Your task to perform on an android device: Do I have any events this weekend? Image 0: 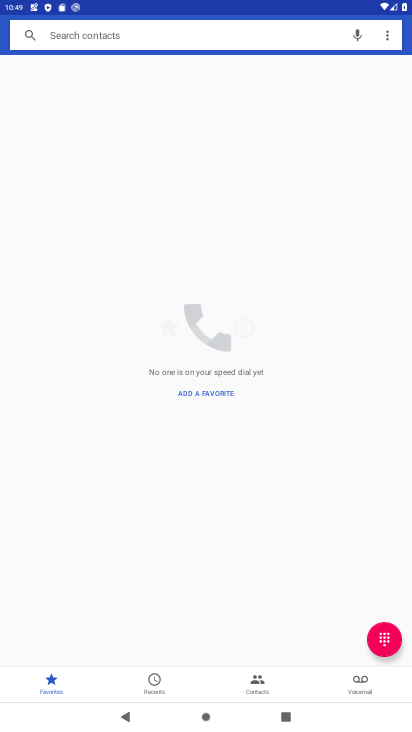
Step 0: press home button
Your task to perform on an android device: Do I have any events this weekend? Image 1: 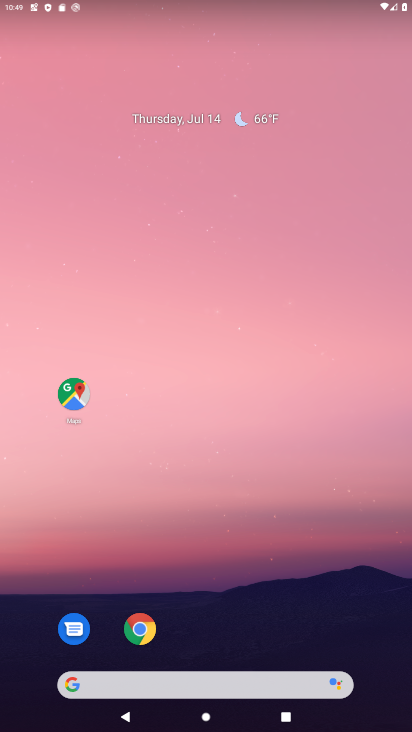
Step 1: drag from (255, 624) to (350, 23)
Your task to perform on an android device: Do I have any events this weekend? Image 2: 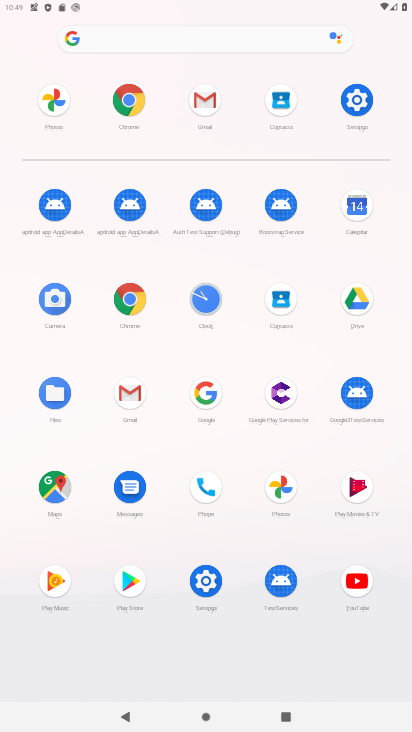
Step 2: click (355, 208)
Your task to perform on an android device: Do I have any events this weekend? Image 3: 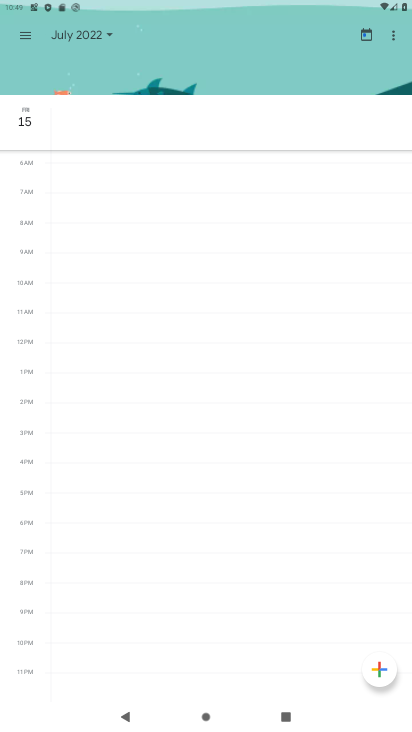
Step 3: click (29, 38)
Your task to perform on an android device: Do I have any events this weekend? Image 4: 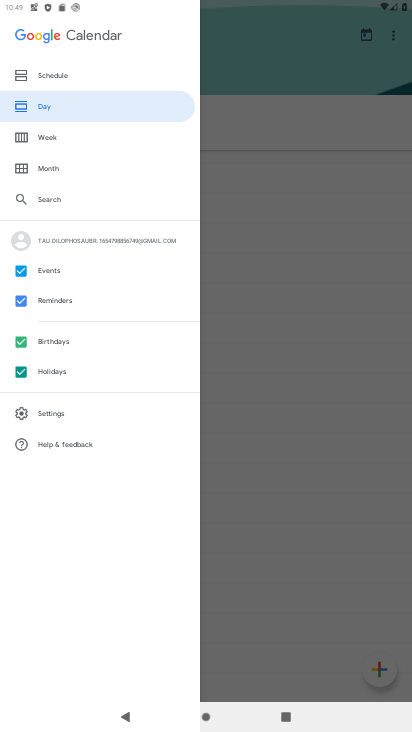
Step 4: click (39, 136)
Your task to perform on an android device: Do I have any events this weekend? Image 5: 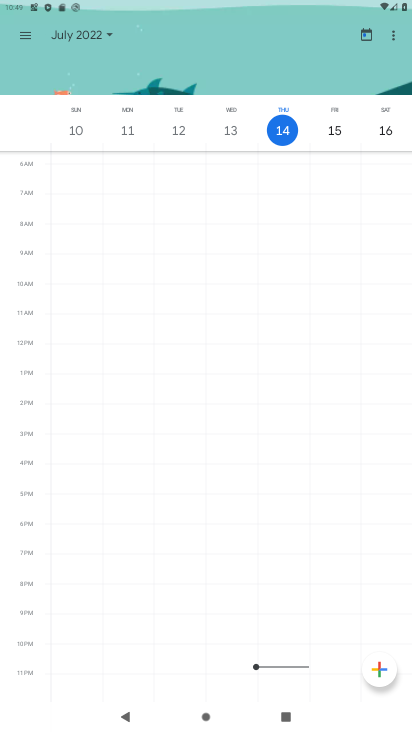
Step 5: task complete